Your task to perform on an android device: Search for Mexican restaurants on Maps Image 0: 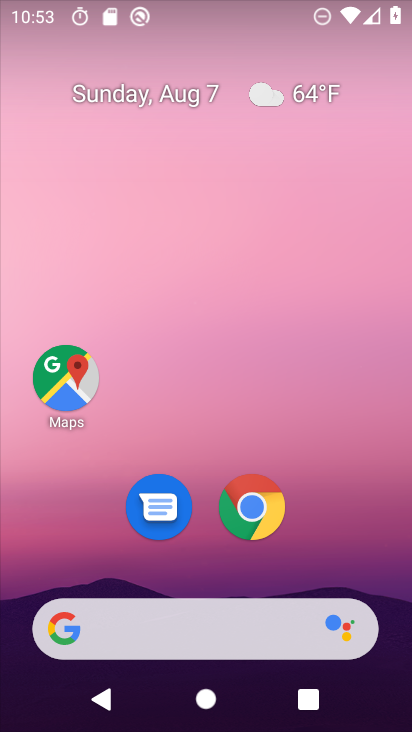
Step 0: drag from (343, 433) to (317, 126)
Your task to perform on an android device: Search for Mexican restaurants on Maps Image 1: 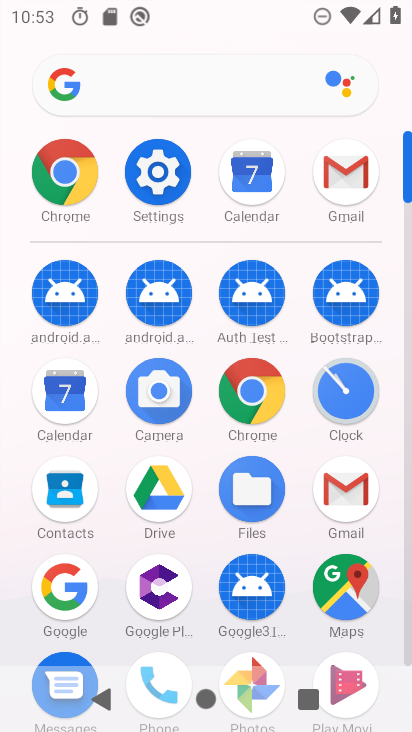
Step 1: click (345, 586)
Your task to perform on an android device: Search for Mexican restaurants on Maps Image 2: 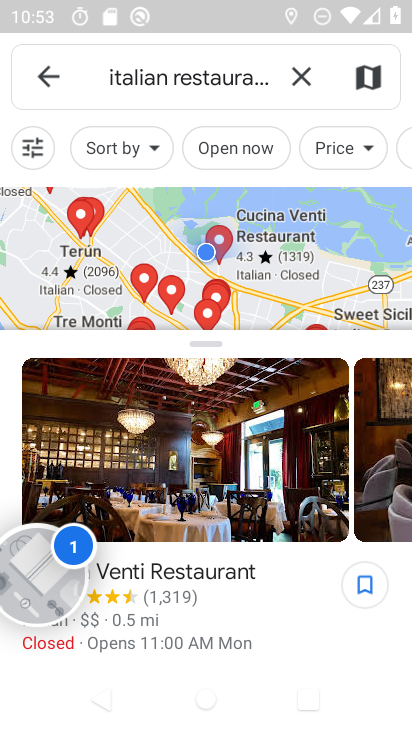
Step 2: click (260, 84)
Your task to perform on an android device: Search for Mexican restaurants on Maps Image 3: 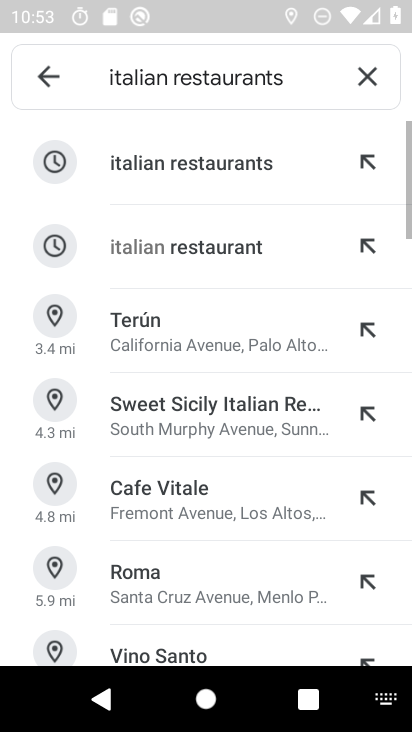
Step 3: click (357, 65)
Your task to perform on an android device: Search for Mexican restaurants on Maps Image 4: 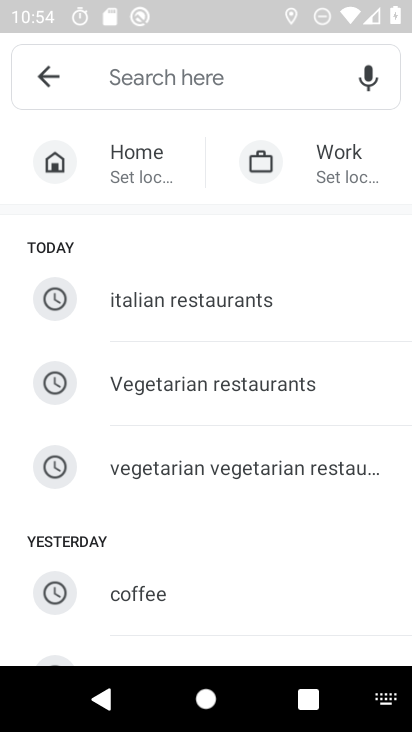
Step 4: type "Mexican restaurants"
Your task to perform on an android device: Search for Mexican restaurants on Maps Image 5: 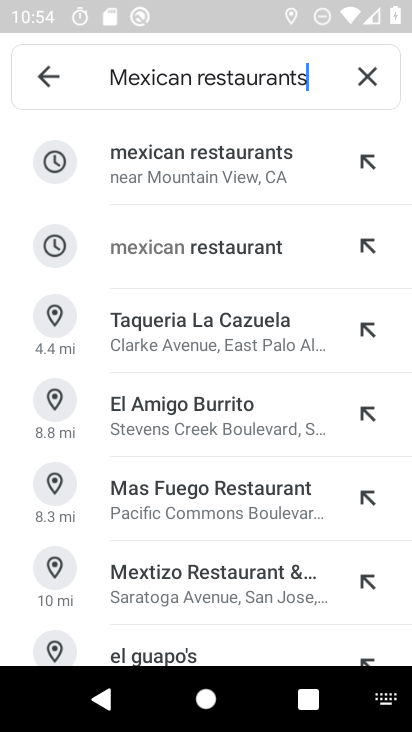
Step 5: click (259, 150)
Your task to perform on an android device: Search for Mexican restaurants on Maps Image 6: 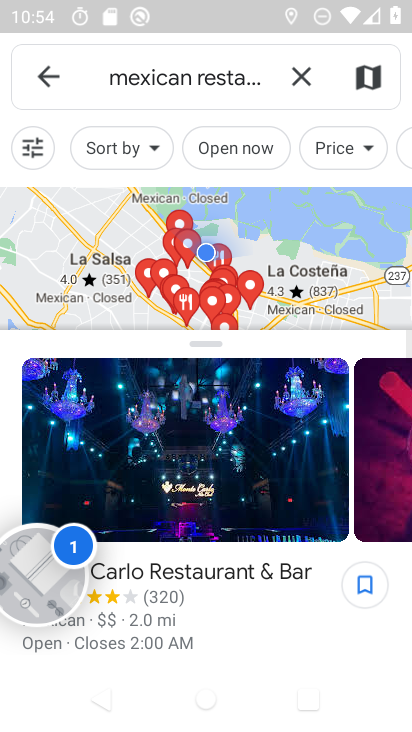
Step 6: task complete